Your task to perform on an android device: Go to Maps Image 0: 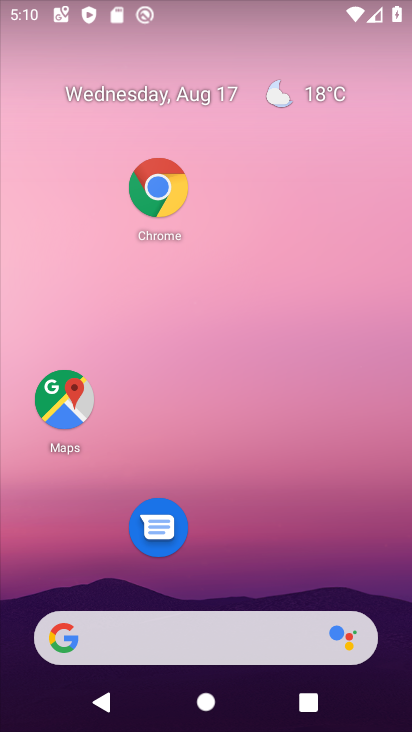
Step 0: click (64, 409)
Your task to perform on an android device: Go to Maps Image 1: 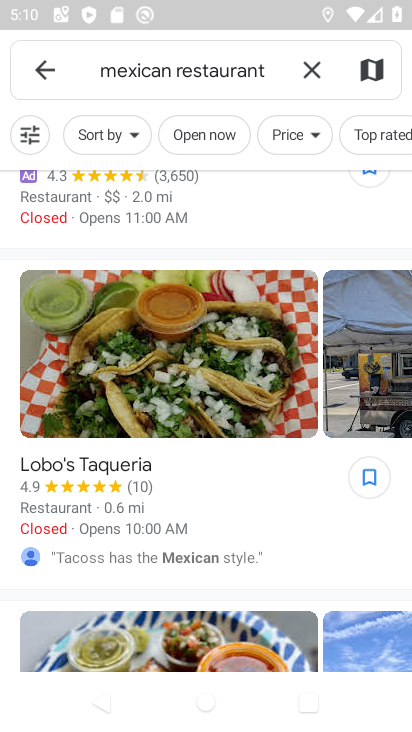
Step 1: click (40, 74)
Your task to perform on an android device: Go to Maps Image 2: 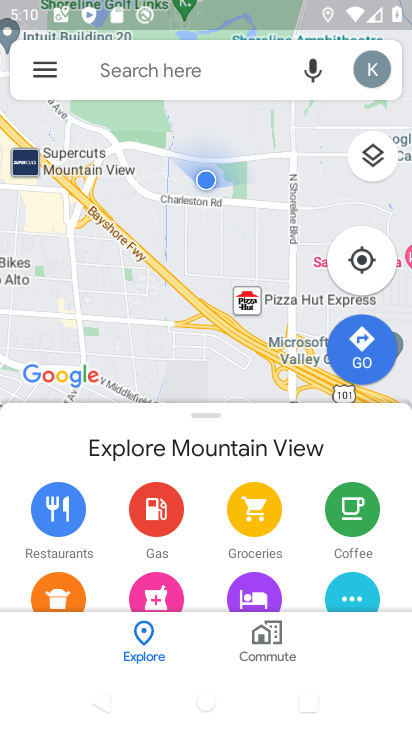
Step 2: task complete